Your task to perform on an android device: turn off notifications in google photos Image 0: 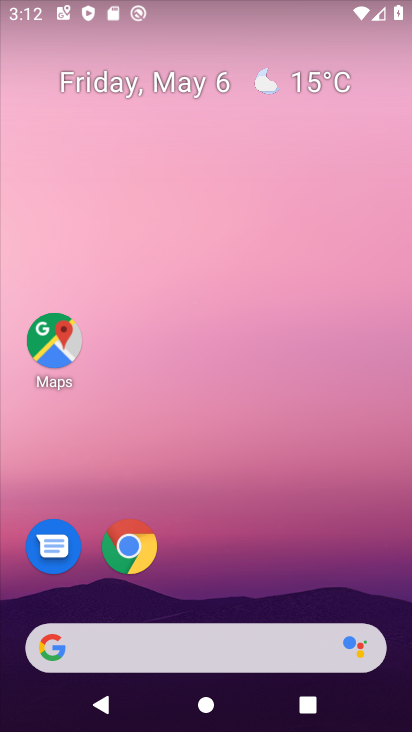
Step 0: drag from (206, 579) to (218, 281)
Your task to perform on an android device: turn off notifications in google photos Image 1: 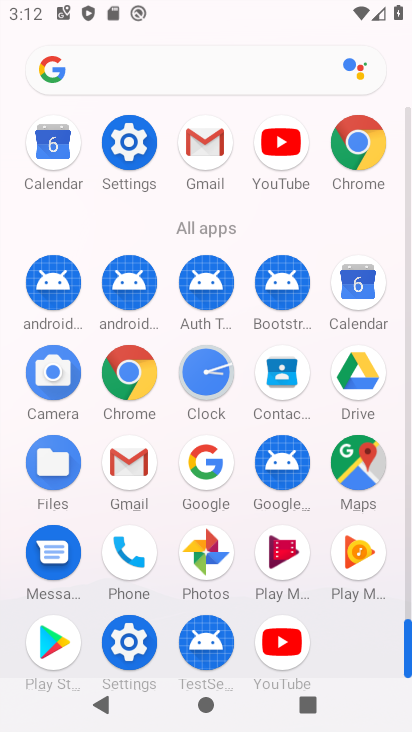
Step 1: click (218, 550)
Your task to perform on an android device: turn off notifications in google photos Image 2: 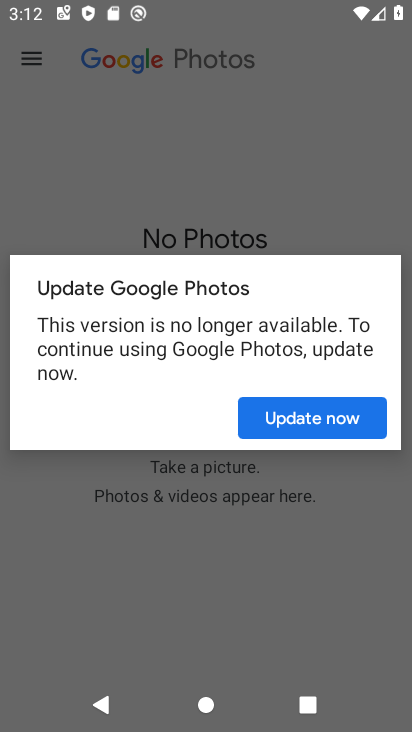
Step 2: click (329, 422)
Your task to perform on an android device: turn off notifications in google photos Image 3: 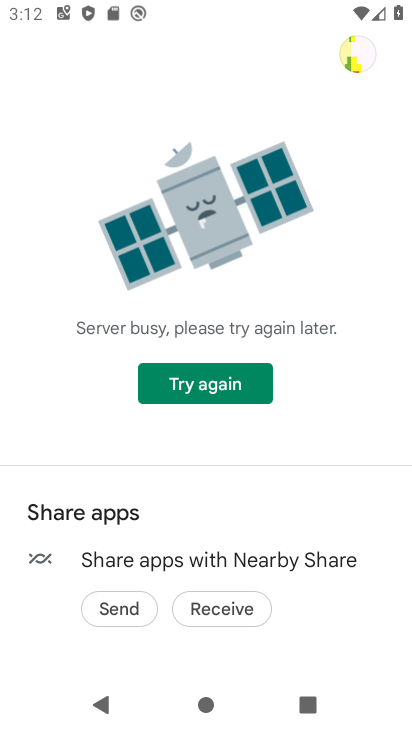
Step 3: click (234, 376)
Your task to perform on an android device: turn off notifications in google photos Image 4: 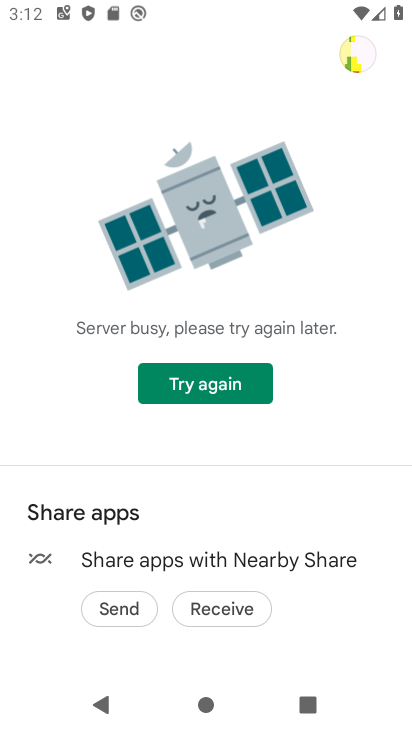
Step 4: click (223, 383)
Your task to perform on an android device: turn off notifications in google photos Image 5: 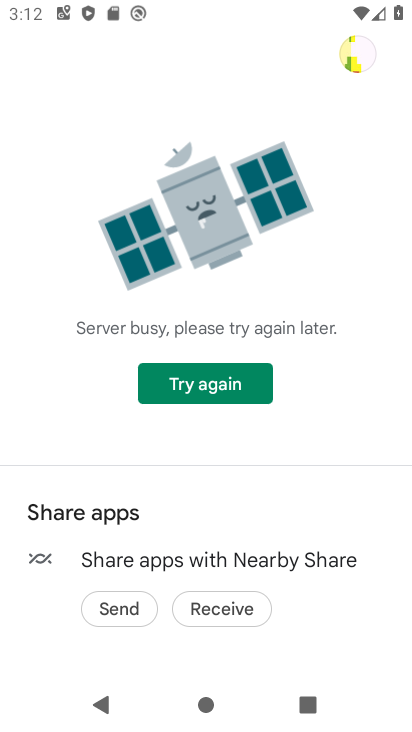
Step 5: task complete